Your task to perform on an android device: Go to ESPN.com Image 0: 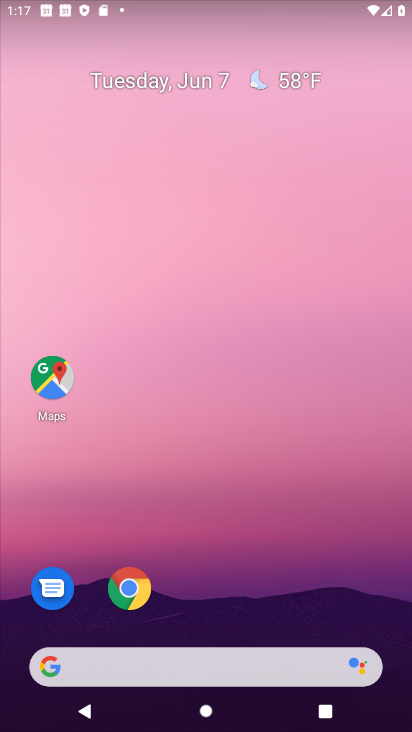
Step 0: drag from (287, 610) to (230, 47)
Your task to perform on an android device: Go to ESPN.com Image 1: 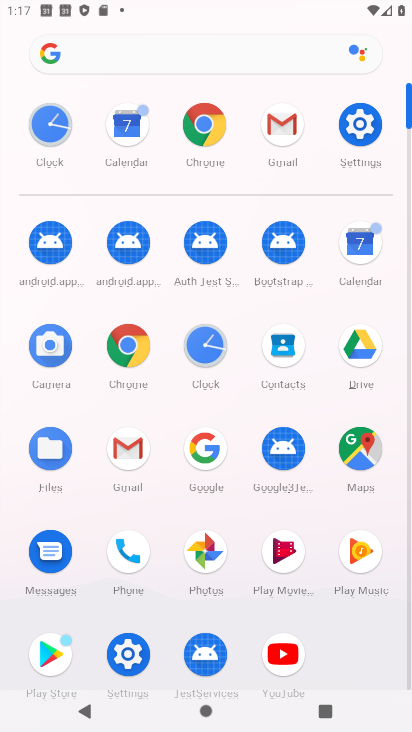
Step 1: click (200, 63)
Your task to perform on an android device: Go to ESPN.com Image 2: 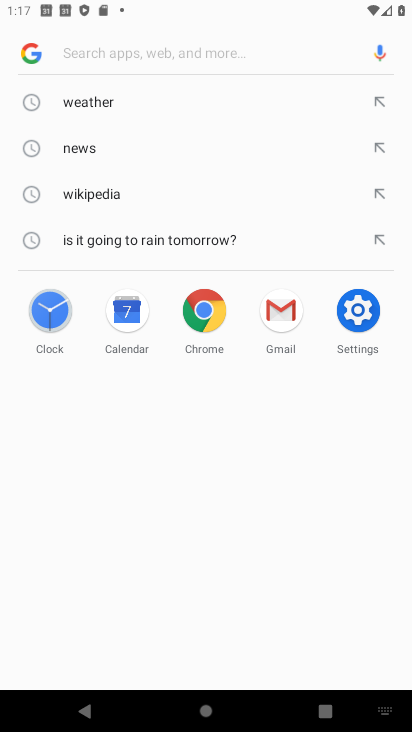
Step 2: type "espn"
Your task to perform on an android device: Go to ESPN.com Image 3: 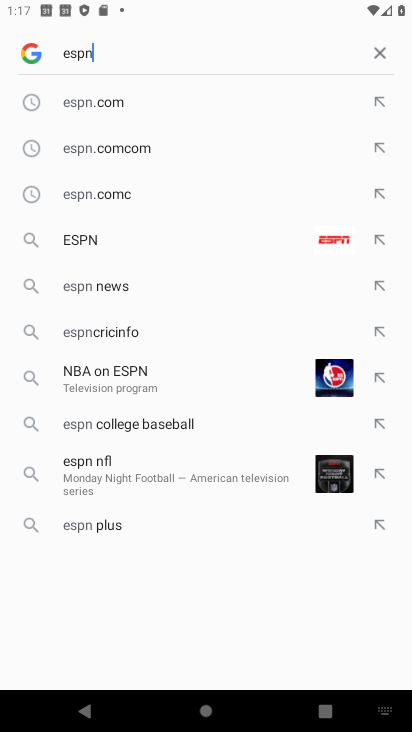
Step 3: click (160, 97)
Your task to perform on an android device: Go to ESPN.com Image 4: 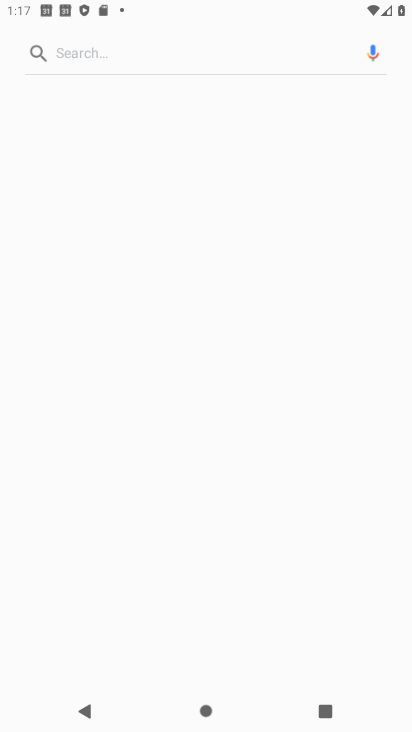
Step 4: task complete